Your task to perform on an android device: Go to Android settings Image 0: 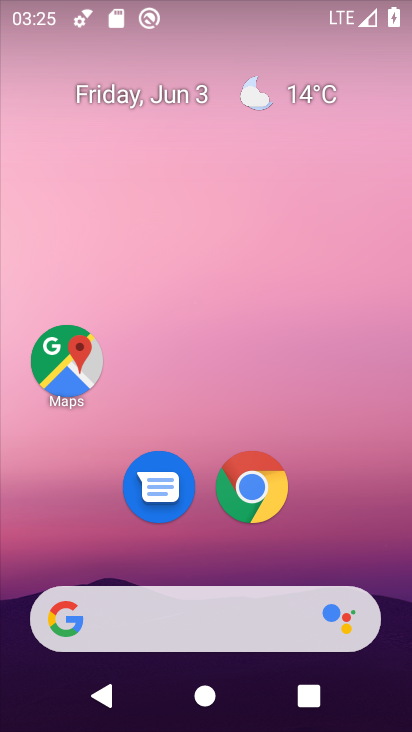
Step 0: drag from (344, 554) to (228, 6)
Your task to perform on an android device: Go to Android settings Image 1: 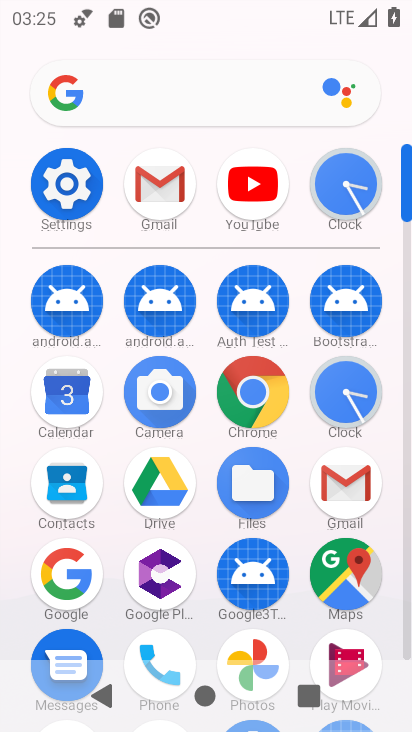
Step 1: click (49, 208)
Your task to perform on an android device: Go to Android settings Image 2: 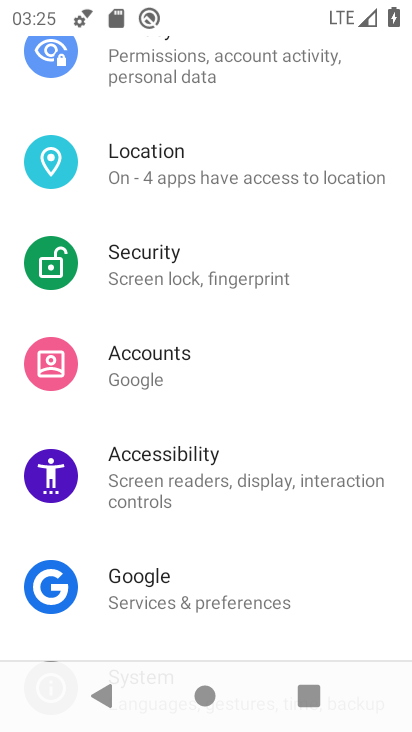
Step 2: drag from (253, 476) to (218, 3)
Your task to perform on an android device: Go to Android settings Image 3: 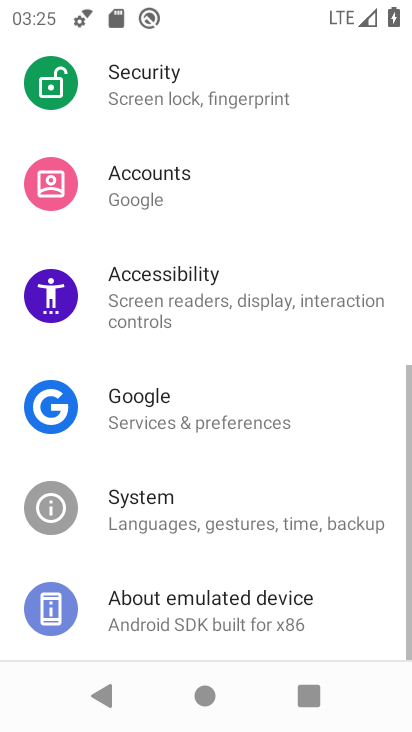
Step 3: click (242, 599)
Your task to perform on an android device: Go to Android settings Image 4: 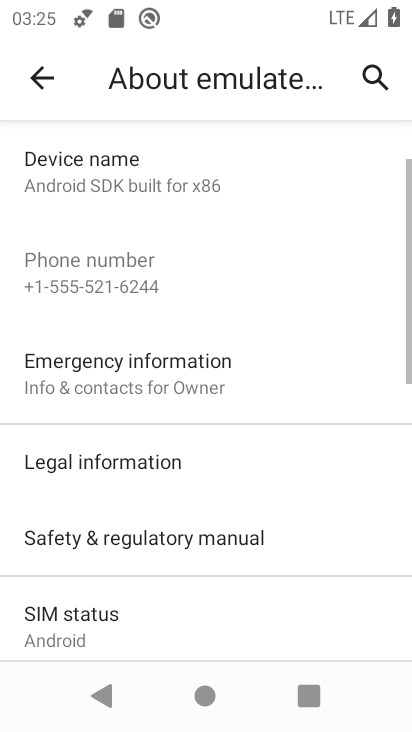
Step 4: drag from (246, 557) to (241, 76)
Your task to perform on an android device: Go to Android settings Image 5: 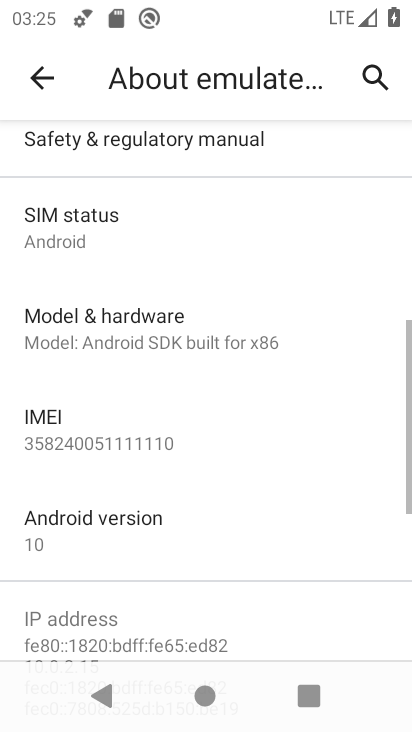
Step 5: click (159, 544)
Your task to perform on an android device: Go to Android settings Image 6: 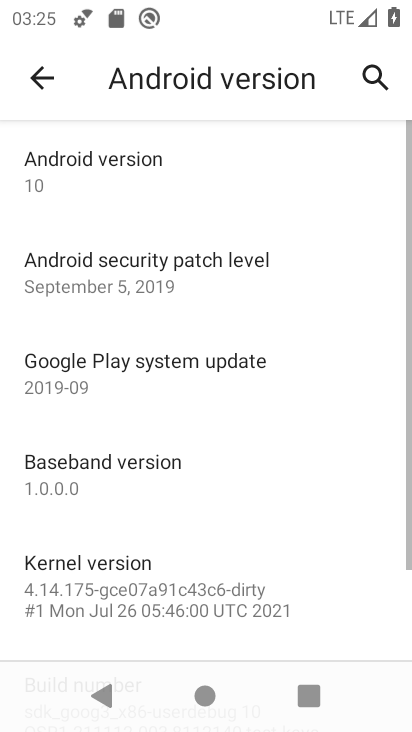
Step 6: task complete